Your task to perform on an android device: Go to Android settings Image 0: 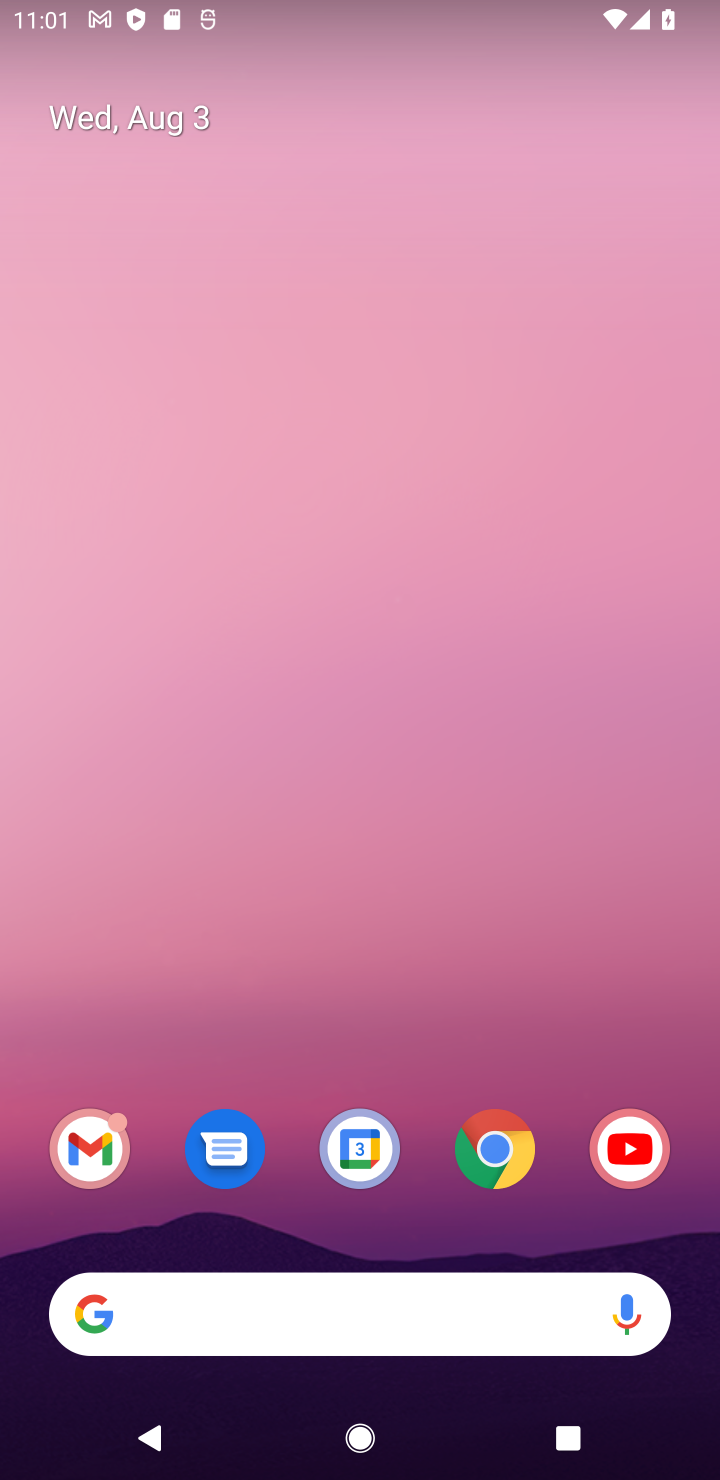
Step 0: drag from (422, 1189) to (278, 236)
Your task to perform on an android device: Go to Android settings Image 1: 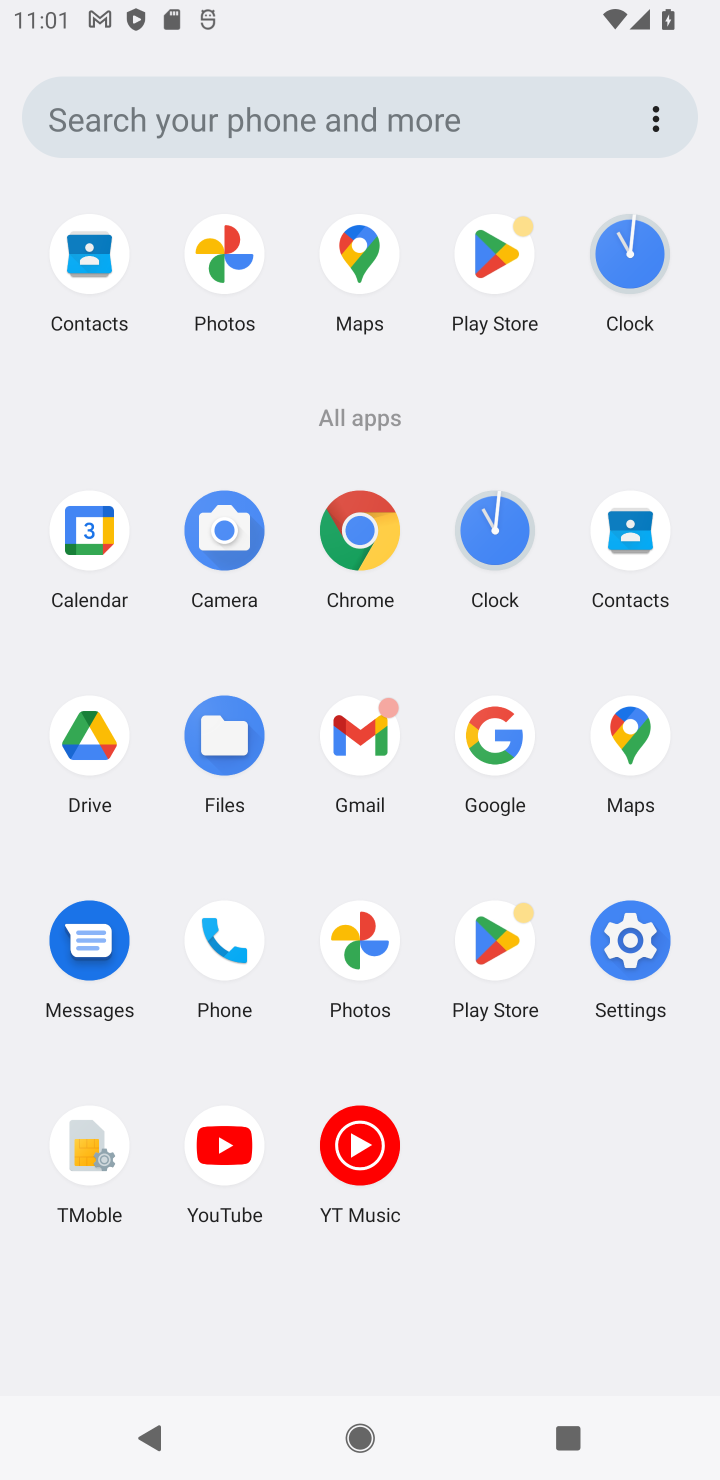
Step 1: click (608, 981)
Your task to perform on an android device: Go to Android settings Image 2: 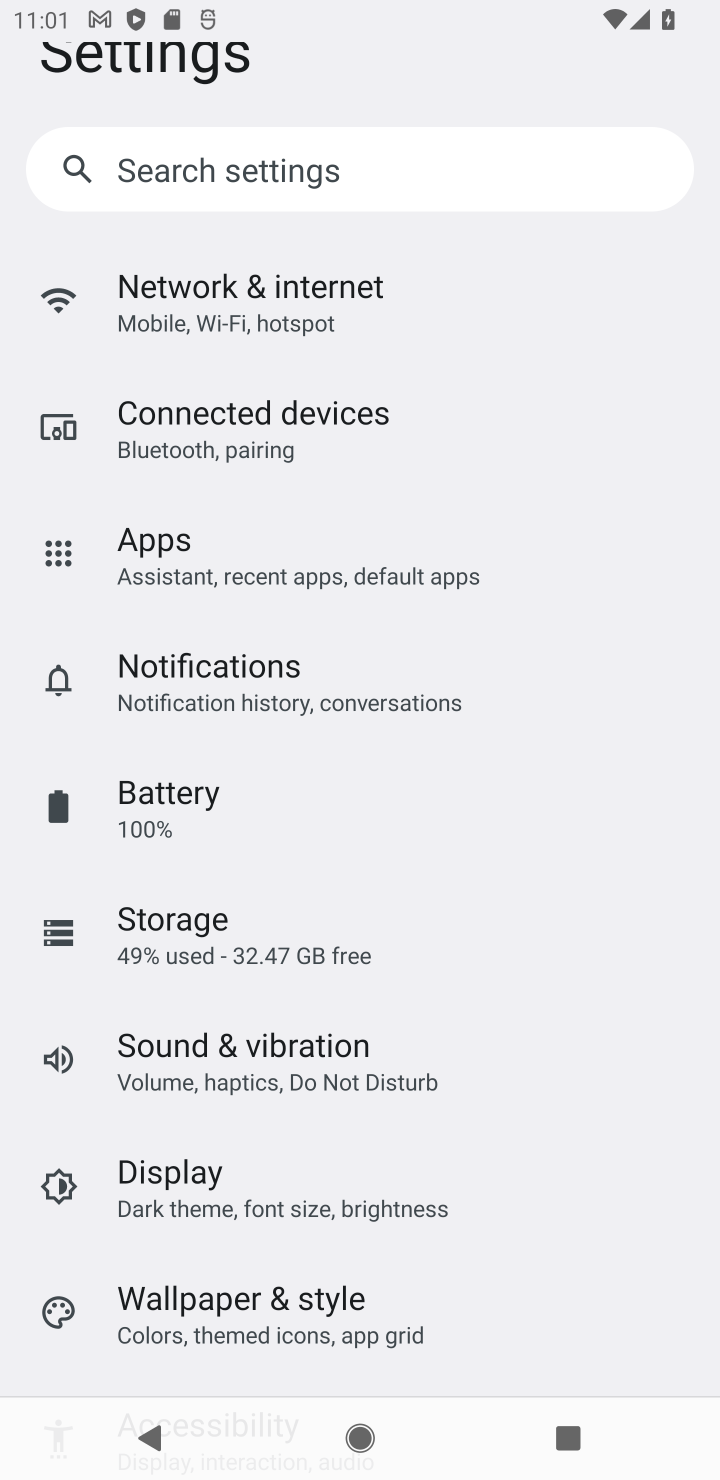
Step 2: task complete